Your task to perform on an android device: Go to notification settings Image 0: 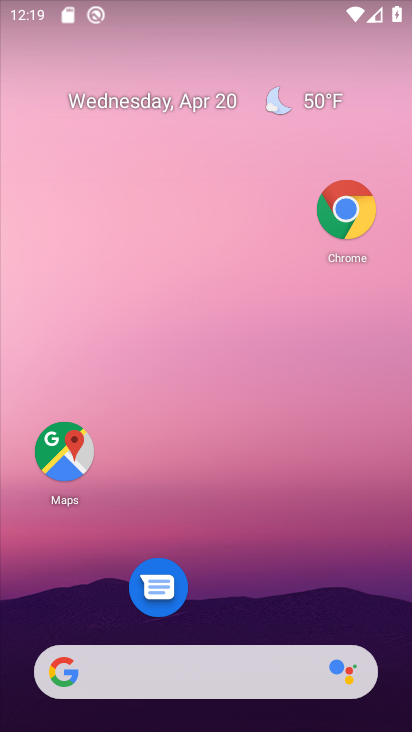
Step 0: drag from (234, 607) to (305, 72)
Your task to perform on an android device: Go to notification settings Image 1: 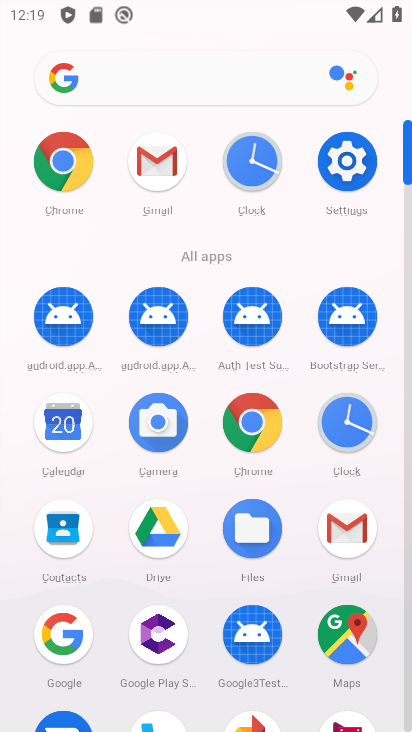
Step 1: click (348, 184)
Your task to perform on an android device: Go to notification settings Image 2: 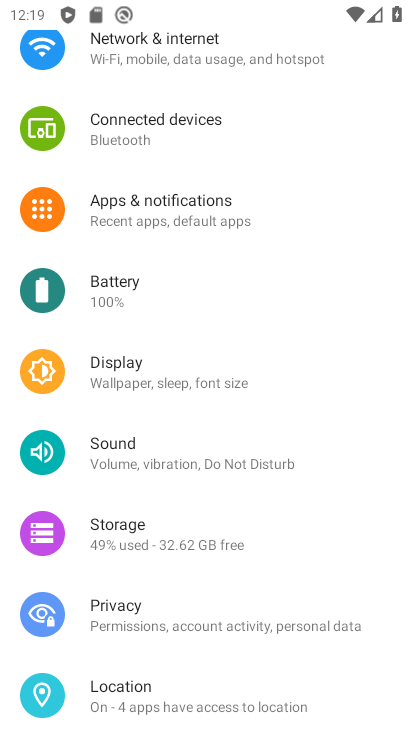
Step 2: drag from (226, 174) to (174, 506)
Your task to perform on an android device: Go to notification settings Image 3: 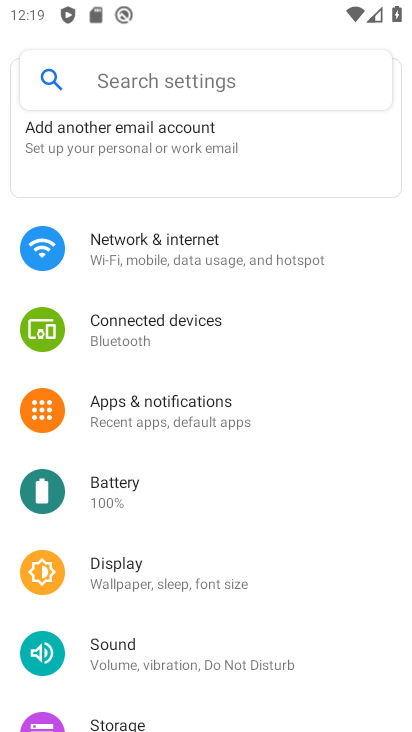
Step 3: click (179, 418)
Your task to perform on an android device: Go to notification settings Image 4: 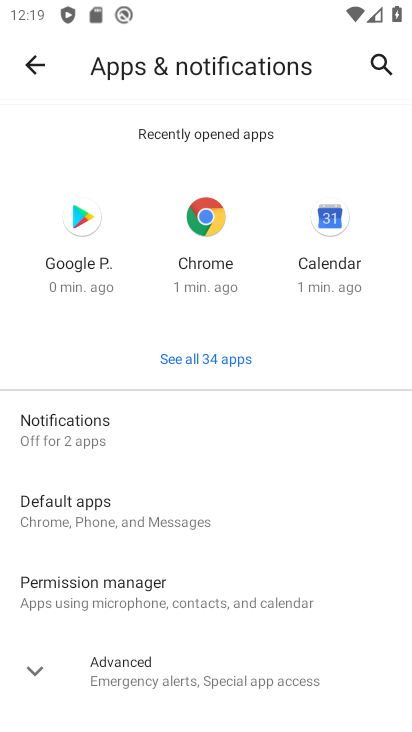
Step 4: click (85, 445)
Your task to perform on an android device: Go to notification settings Image 5: 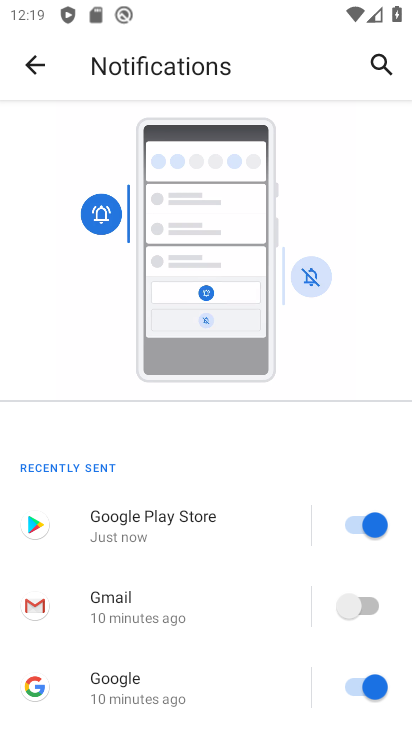
Step 5: task complete